Your task to perform on an android device: open app "Mercado Libre" (install if not already installed) Image 0: 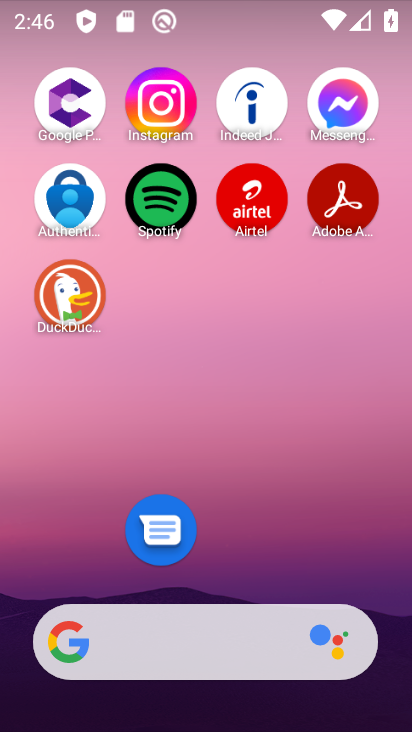
Step 0: drag from (263, 574) to (248, 2)
Your task to perform on an android device: open app "Mercado Libre" (install if not already installed) Image 1: 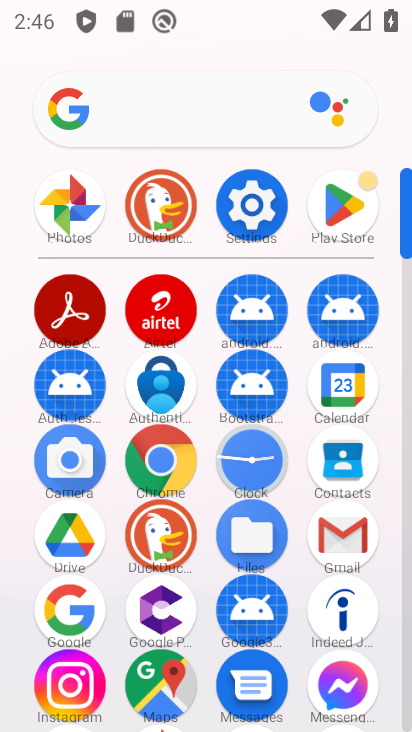
Step 1: click (352, 207)
Your task to perform on an android device: open app "Mercado Libre" (install if not already installed) Image 2: 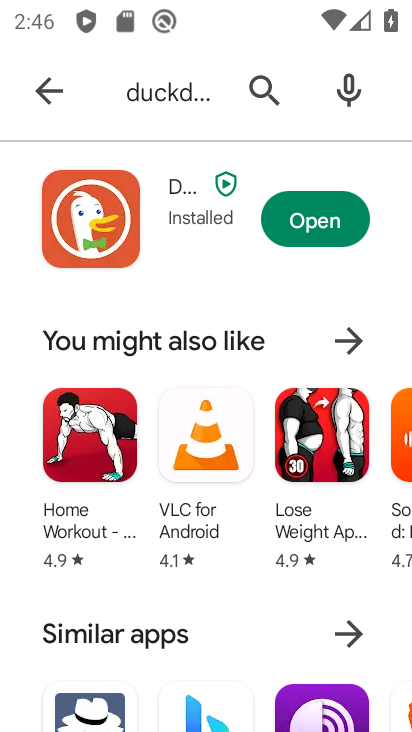
Step 2: click (160, 95)
Your task to perform on an android device: open app "Mercado Libre" (install if not already installed) Image 3: 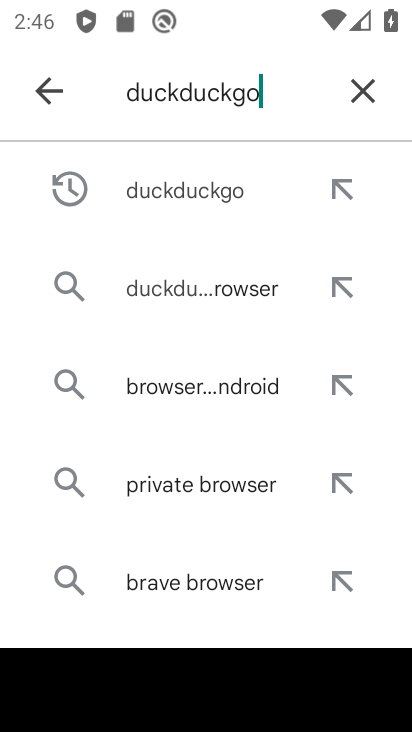
Step 3: click (368, 86)
Your task to perform on an android device: open app "Mercado Libre" (install if not already installed) Image 4: 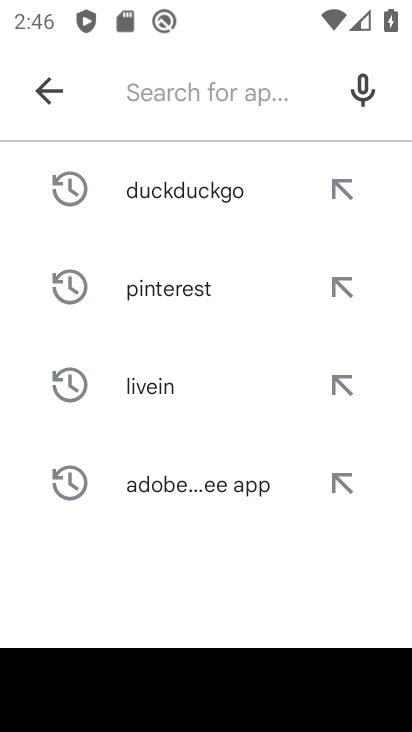
Step 4: type "mercado libre"
Your task to perform on an android device: open app "Mercado Libre" (install if not already installed) Image 5: 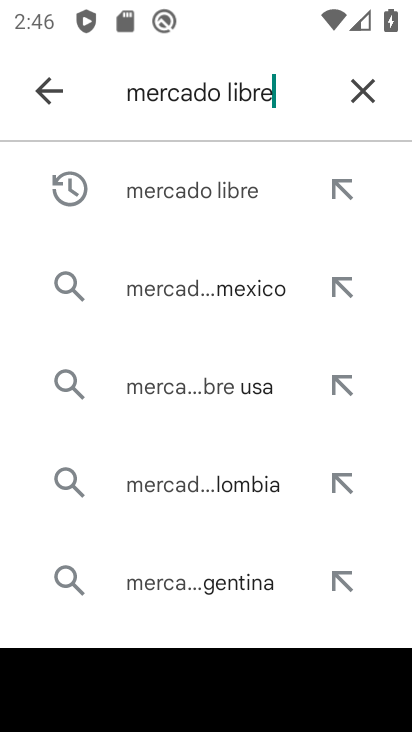
Step 5: click (140, 200)
Your task to perform on an android device: open app "Mercado Libre" (install if not already installed) Image 6: 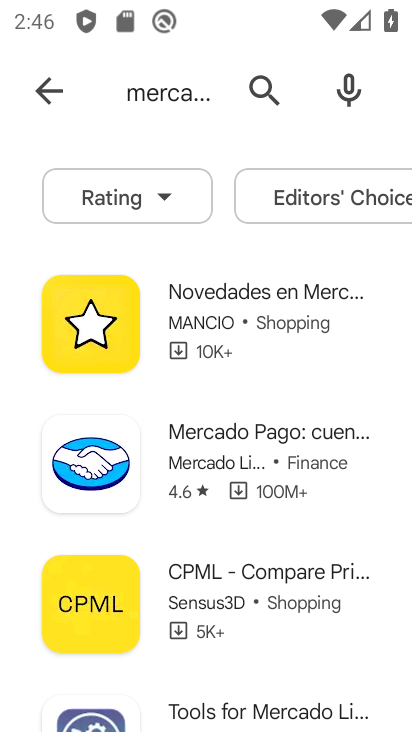
Step 6: task complete